Your task to perform on an android device: Open the Play Movies app and select the watchlist tab. Image 0: 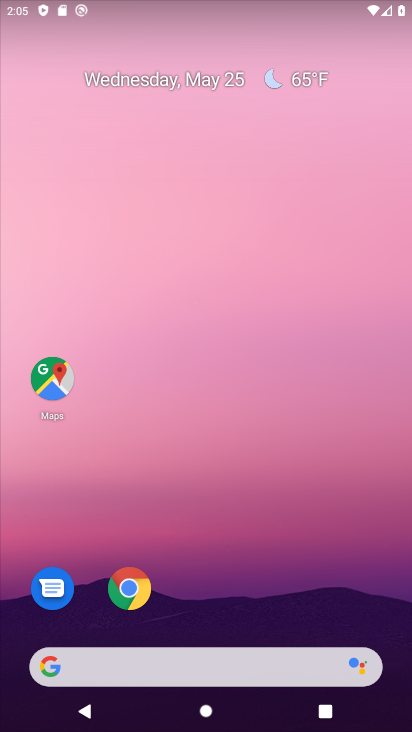
Step 0: drag from (236, 635) to (300, 165)
Your task to perform on an android device: Open the Play Movies app and select the watchlist tab. Image 1: 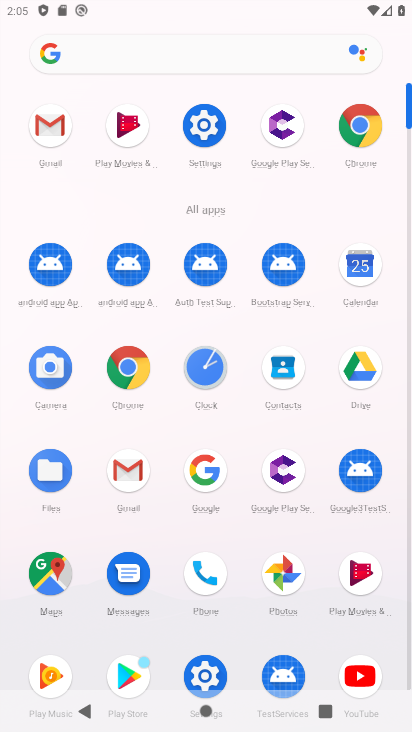
Step 1: click (366, 582)
Your task to perform on an android device: Open the Play Movies app and select the watchlist tab. Image 2: 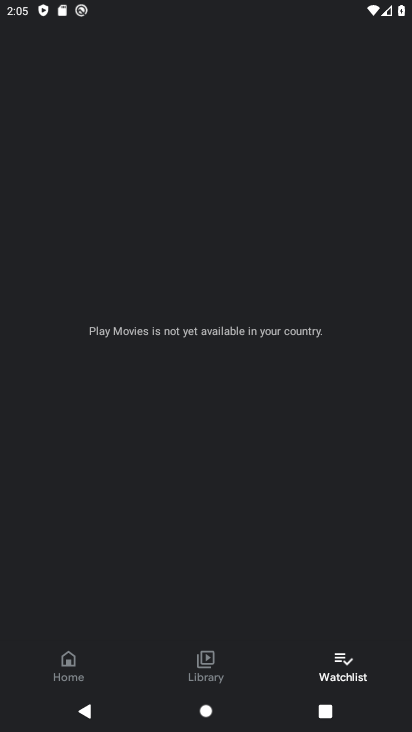
Step 2: click (342, 660)
Your task to perform on an android device: Open the Play Movies app and select the watchlist tab. Image 3: 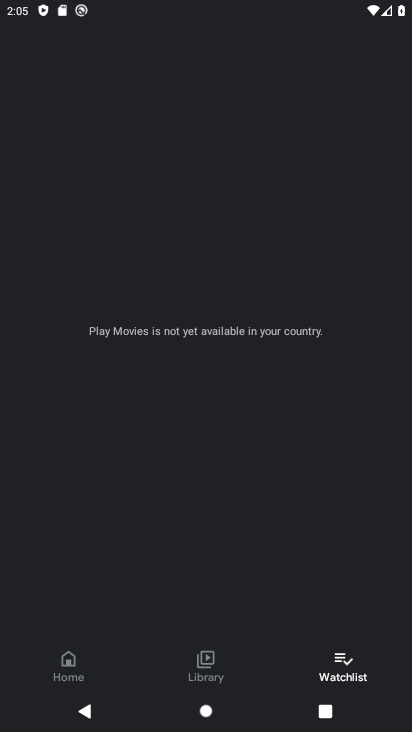
Step 3: task complete